Your task to perform on an android device: check storage Image 0: 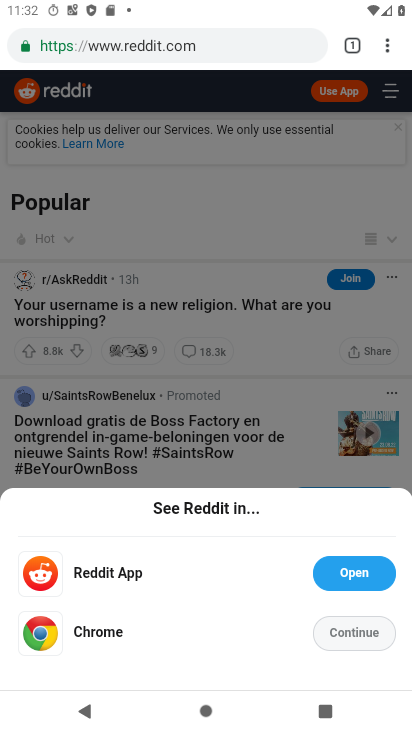
Step 0: press home button
Your task to perform on an android device: check storage Image 1: 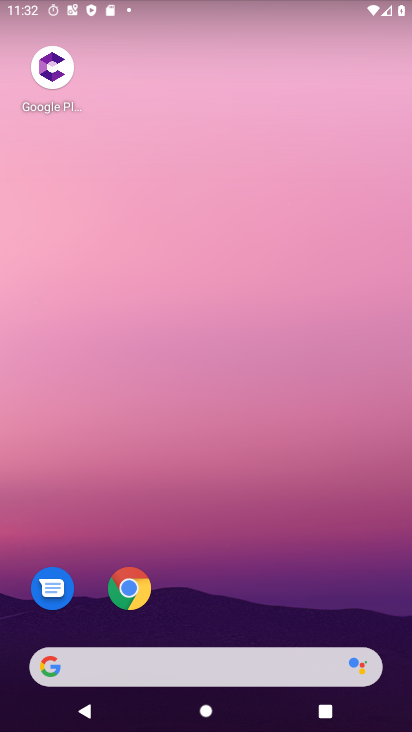
Step 1: drag from (189, 556) to (259, 41)
Your task to perform on an android device: check storage Image 2: 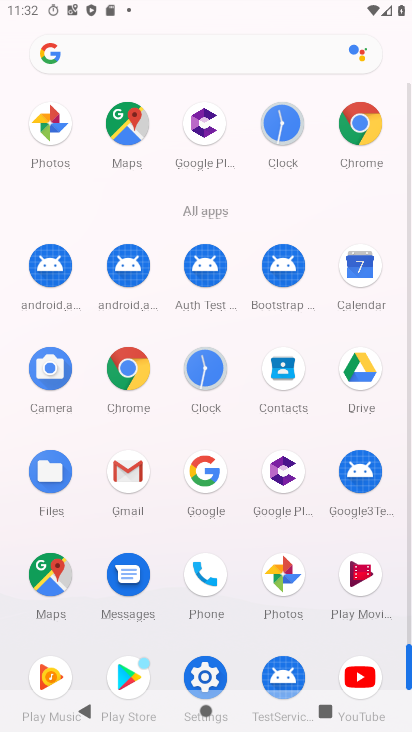
Step 2: click (213, 674)
Your task to perform on an android device: check storage Image 3: 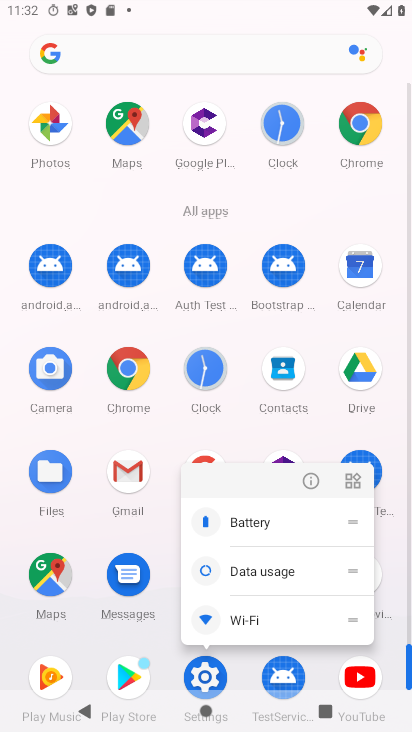
Step 3: click (313, 478)
Your task to perform on an android device: check storage Image 4: 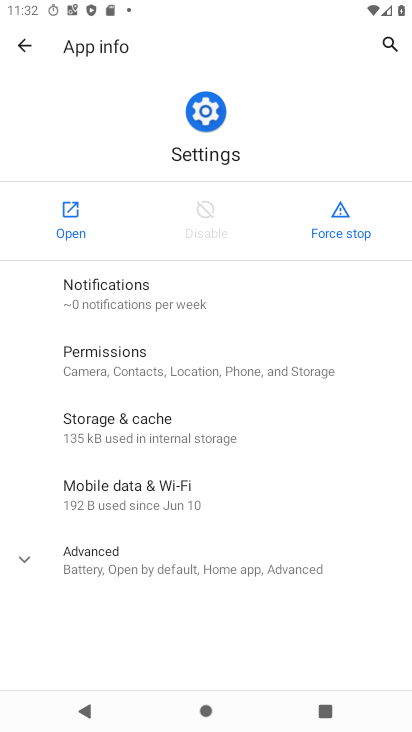
Step 4: drag from (208, 530) to (211, 156)
Your task to perform on an android device: check storage Image 5: 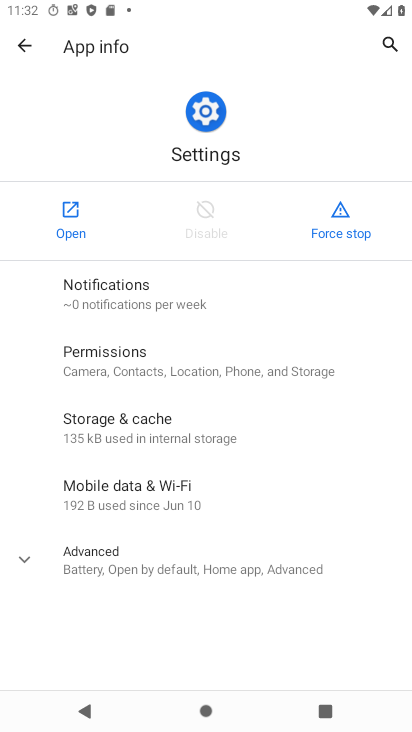
Step 5: click (82, 230)
Your task to perform on an android device: check storage Image 6: 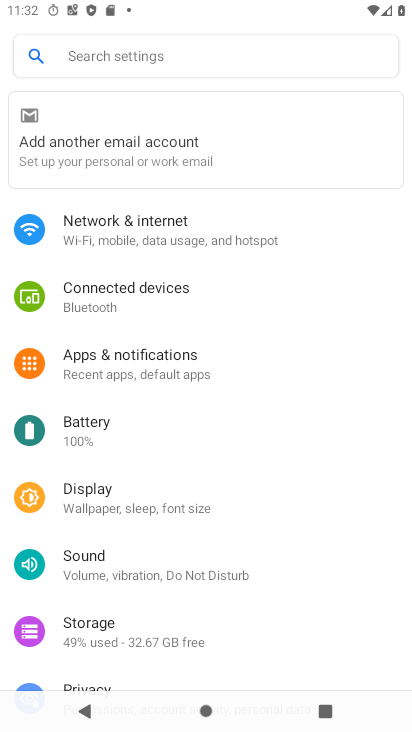
Step 6: drag from (197, 597) to (204, 238)
Your task to perform on an android device: check storage Image 7: 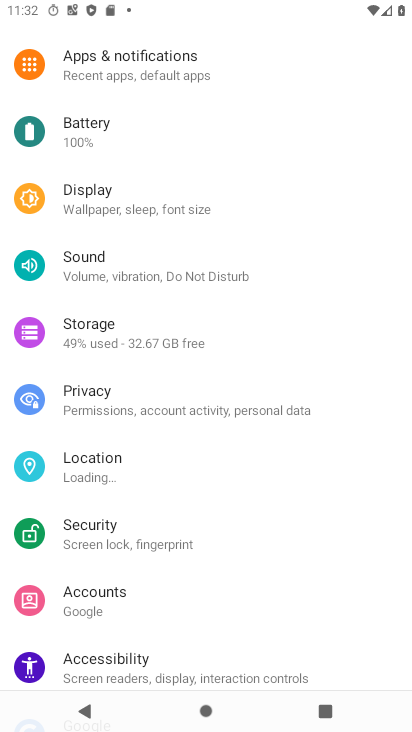
Step 7: click (123, 338)
Your task to perform on an android device: check storage Image 8: 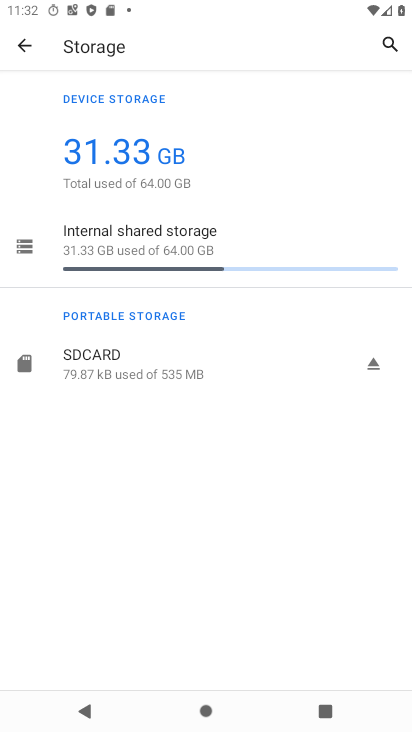
Step 8: task complete